Your task to perform on an android device: Search for hotels in San Francisco Image 0: 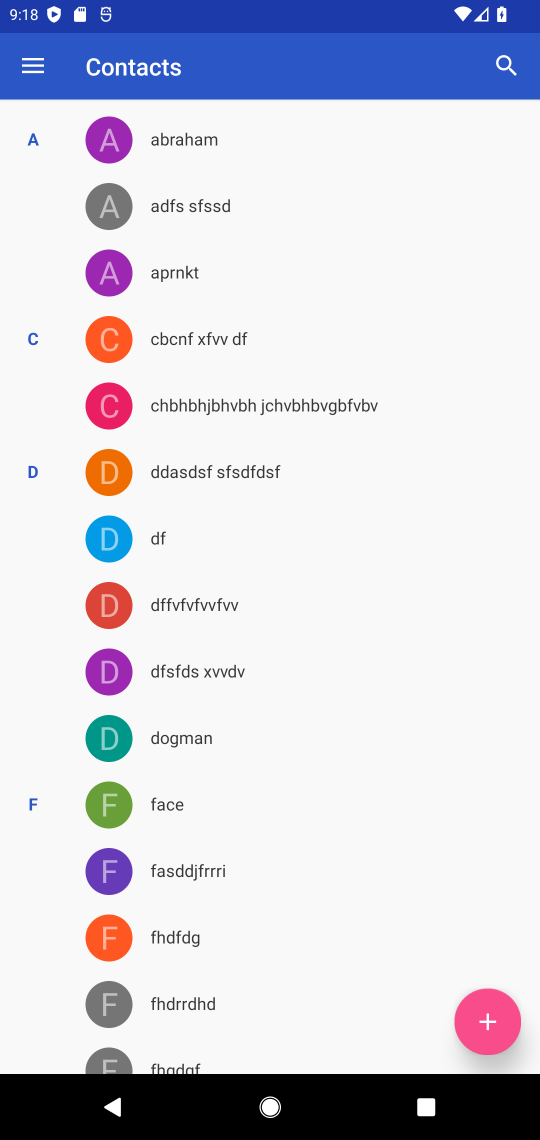
Step 0: press home button
Your task to perform on an android device: Search for hotels in San Francisco Image 1: 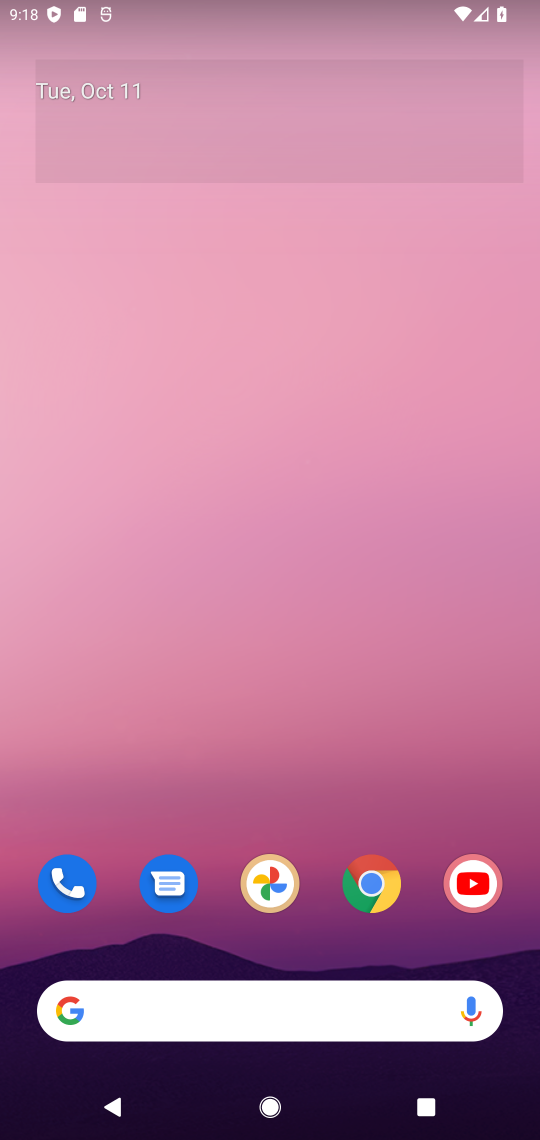
Step 1: click (364, 888)
Your task to perform on an android device: Search for hotels in San Francisco Image 2: 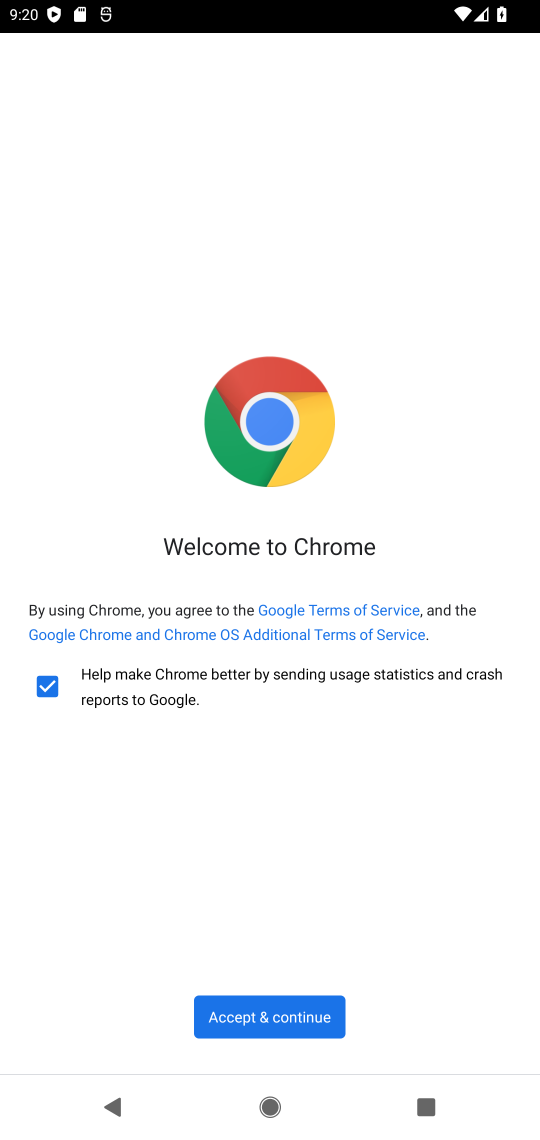
Step 2: press home button
Your task to perform on an android device: Search for hotels in San Francisco Image 3: 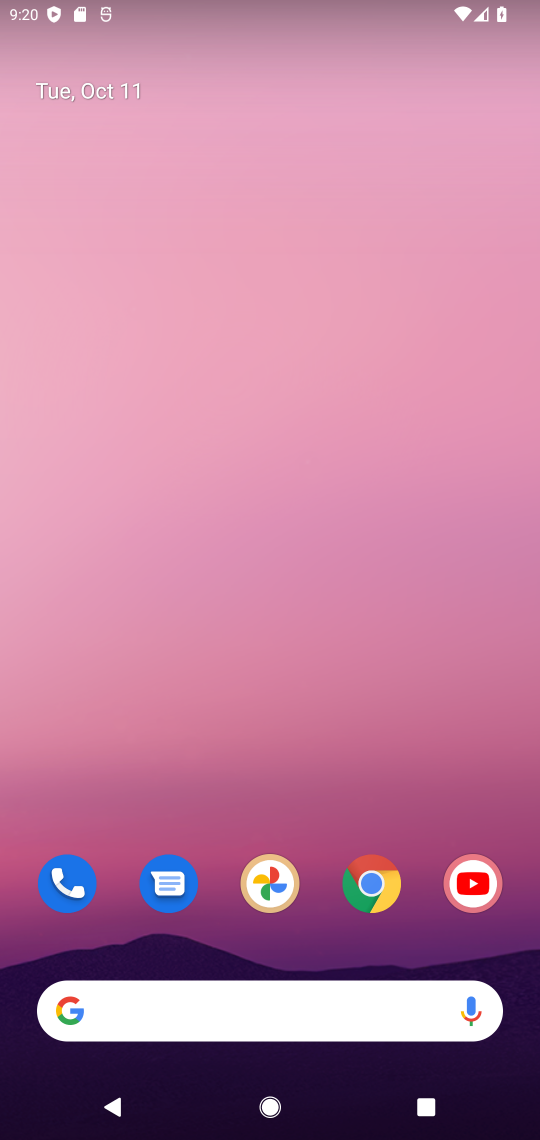
Step 3: click (379, 890)
Your task to perform on an android device: Search for hotels in San Francisco Image 4: 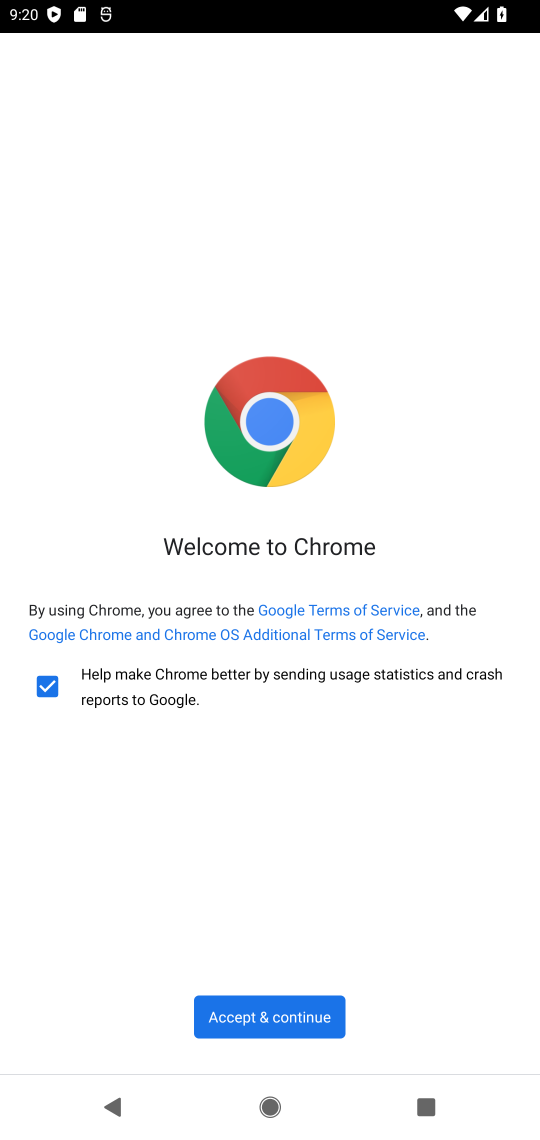
Step 4: click (248, 1021)
Your task to perform on an android device: Search for hotels in San Francisco Image 5: 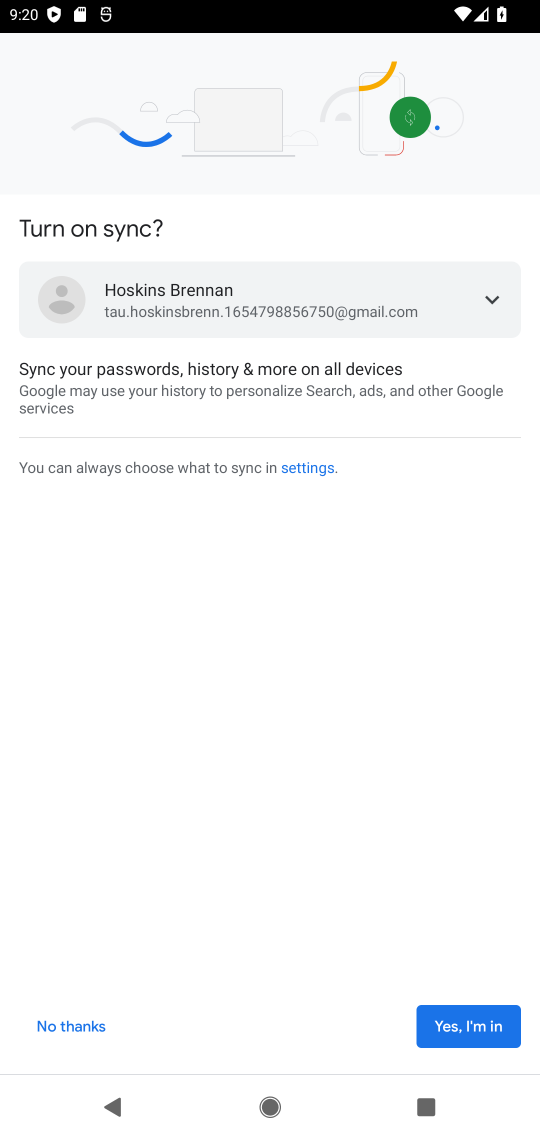
Step 5: click (465, 1037)
Your task to perform on an android device: Search for hotels in San Francisco Image 6: 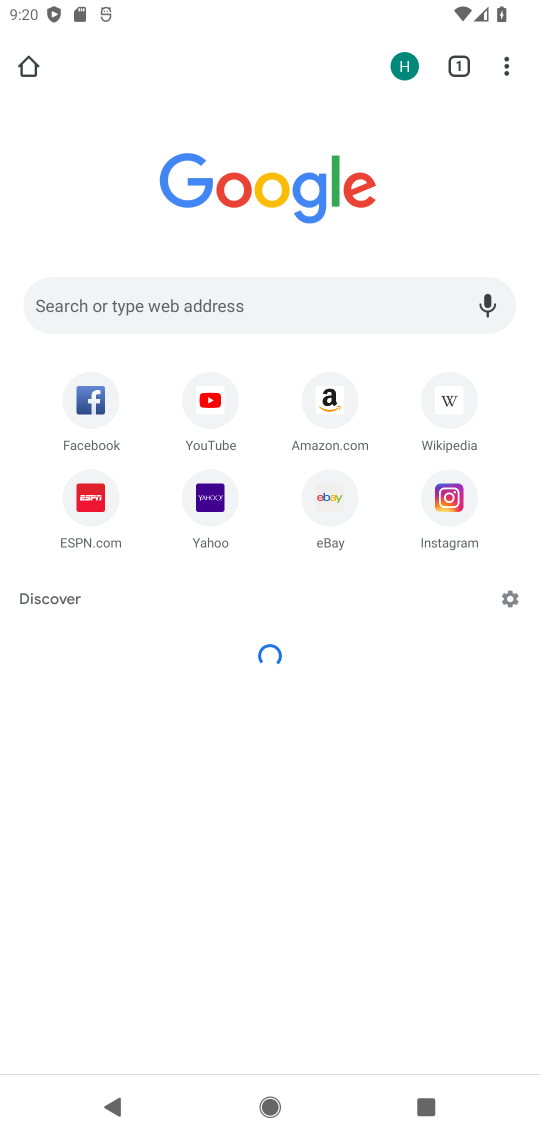
Step 6: click (152, 301)
Your task to perform on an android device: Search for hotels in San Francisco Image 7: 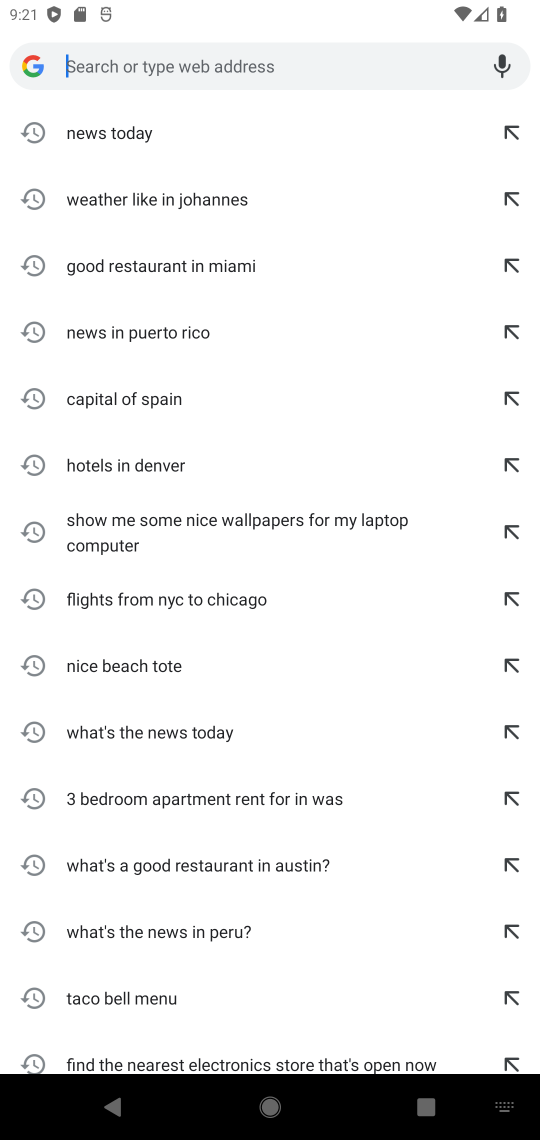
Step 7: type "Search for hotels in San Francisco"
Your task to perform on an android device: Search for hotels in San Francisco Image 8: 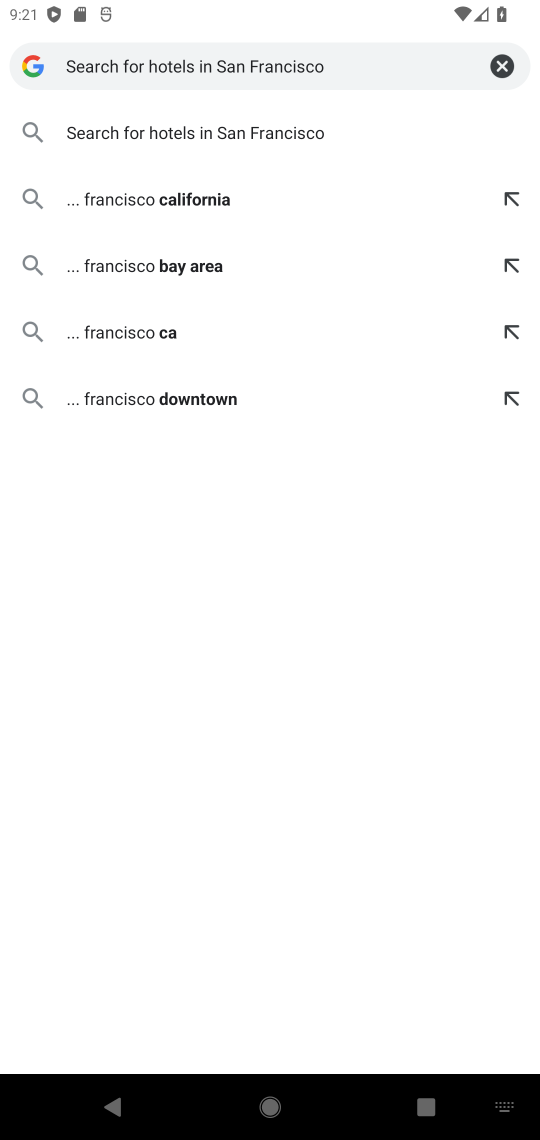
Step 8: click (297, 126)
Your task to perform on an android device: Search for hotels in San Francisco Image 9: 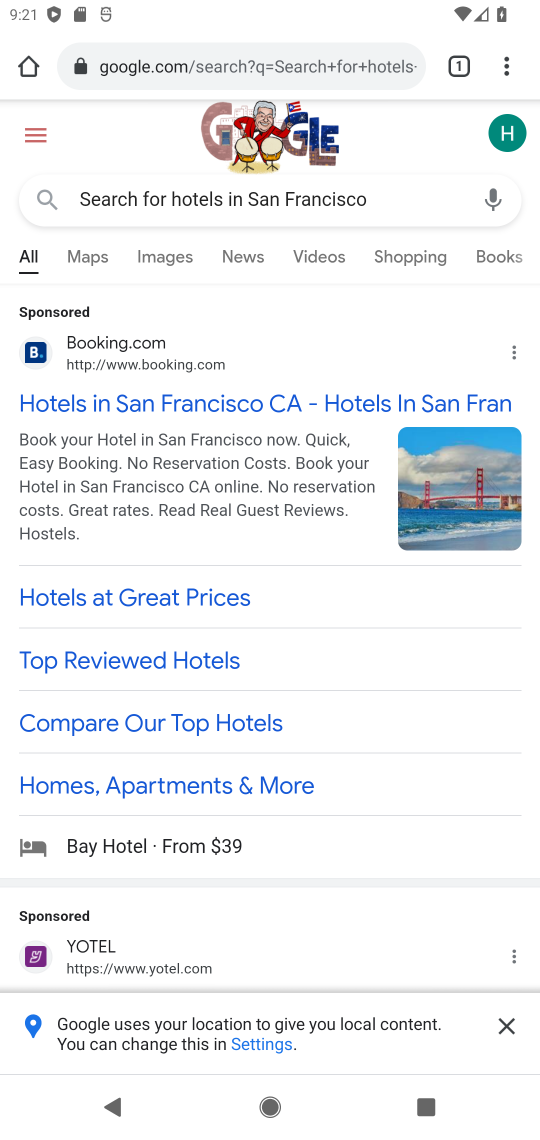
Step 9: task complete